Your task to perform on an android device: Go to Wikipedia Image 0: 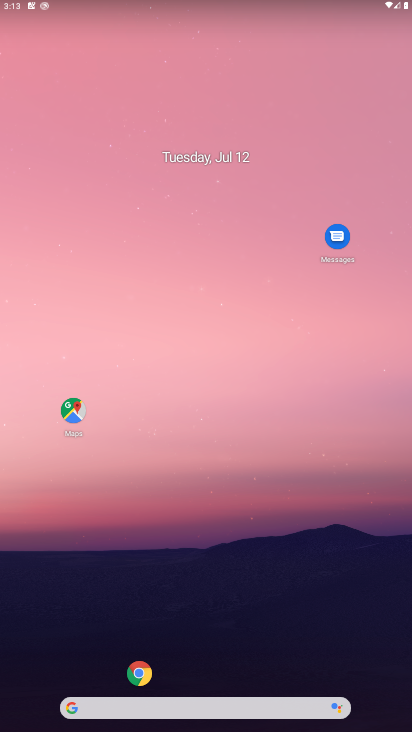
Step 0: click (180, 712)
Your task to perform on an android device: Go to Wikipedia Image 1: 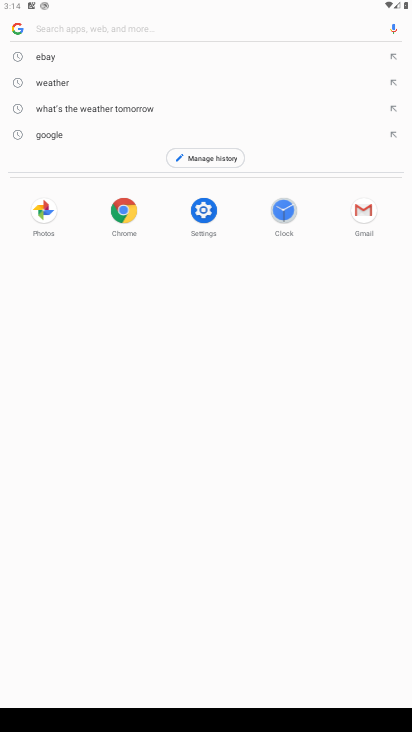
Step 1: click (56, 14)
Your task to perform on an android device: Go to Wikipedia Image 2: 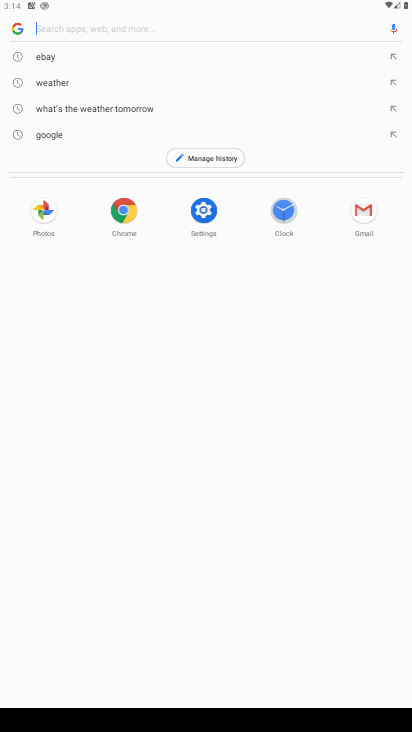
Step 2: type "Wikipedia"
Your task to perform on an android device: Go to Wikipedia Image 3: 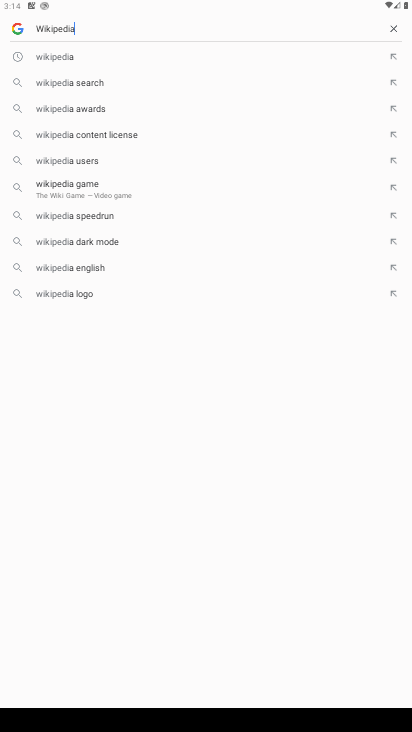
Step 3: type ""
Your task to perform on an android device: Go to Wikipedia Image 4: 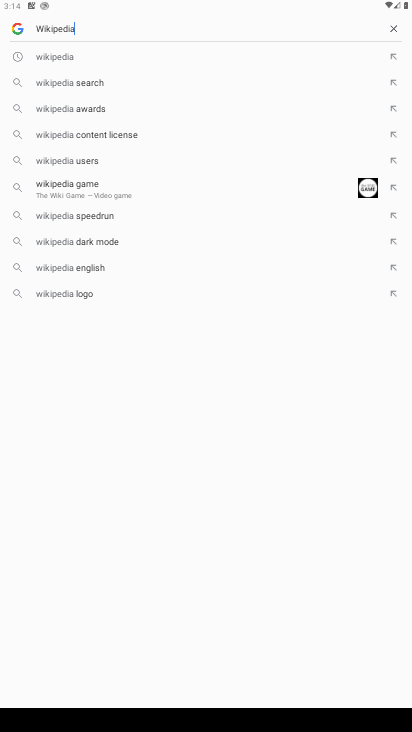
Step 4: click (30, 57)
Your task to perform on an android device: Go to Wikipedia Image 5: 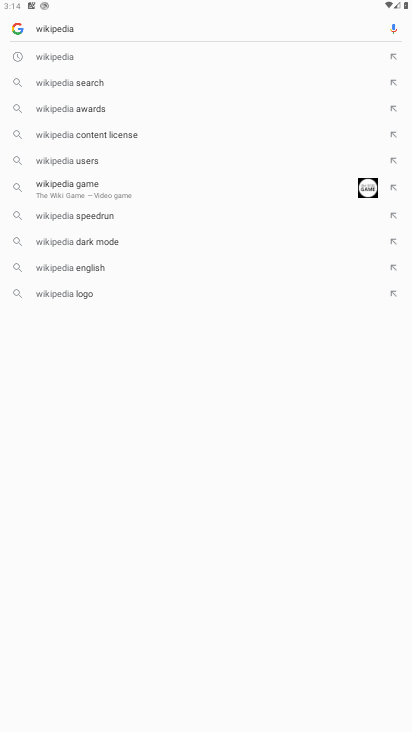
Step 5: click (44, 58)
Your task to perform on an android device: Go to Wikipedia Image 6: 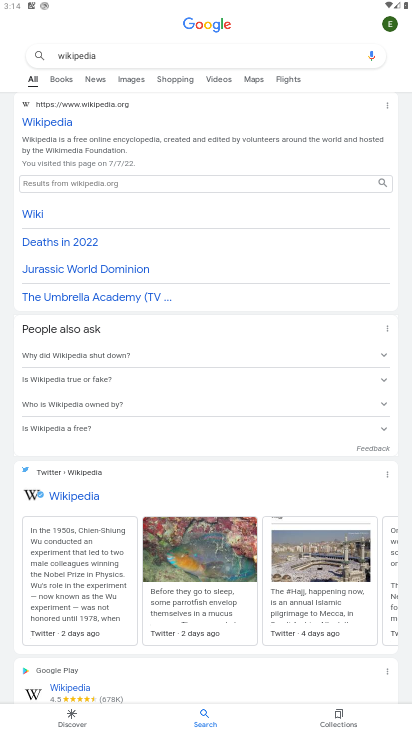
Step 6: task complete